Your task to perform on an android device: toggle priority inbox in the gmail app Image 0: 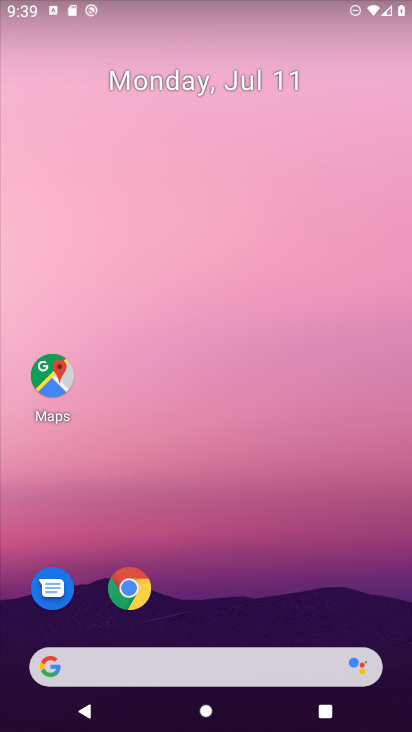
Step 0: drag from (393, 663) to (194, 100)
Your task to perform on an android device: toggle priority inbox in the gmail app Image 1: 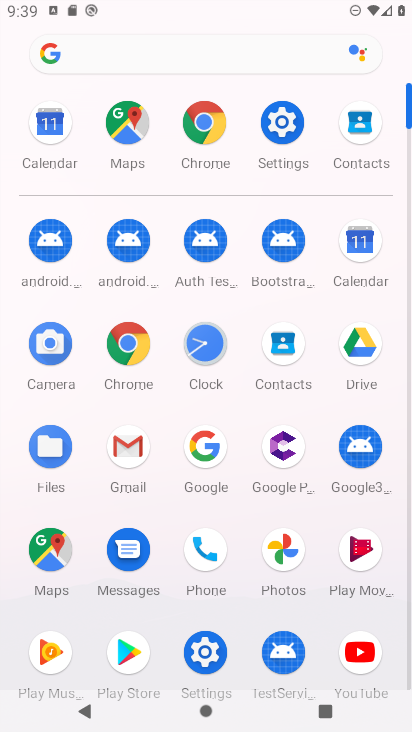
Step 1: click (130, 457)
Your task to perform on an android device: toggle priority inbox in the gmail app Image 2: 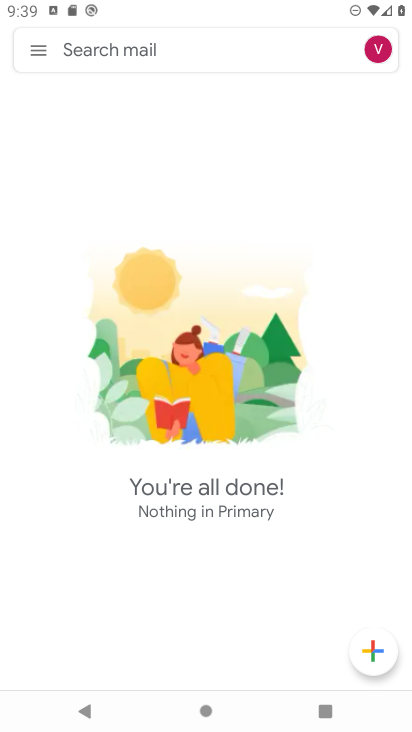
Step 2: click (32, 57)
Your task to perform on an android device: toggle priority inbox in the gmail app Image 3: 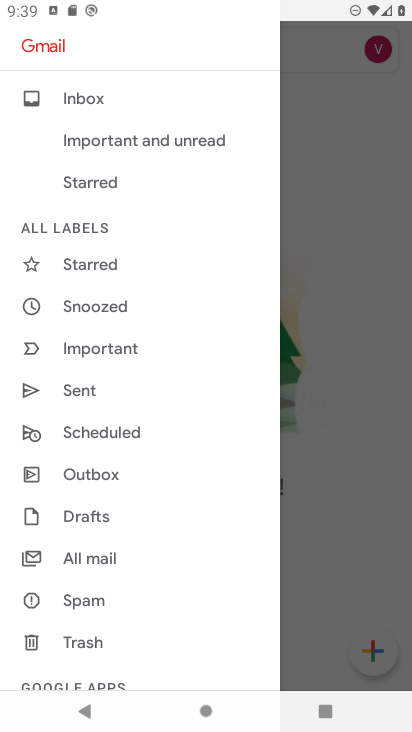
Step 3: drag from (151, 671) to (122, 118)
Your task to perform on an android device: toggle priority inbox in the gmail app Image 4: 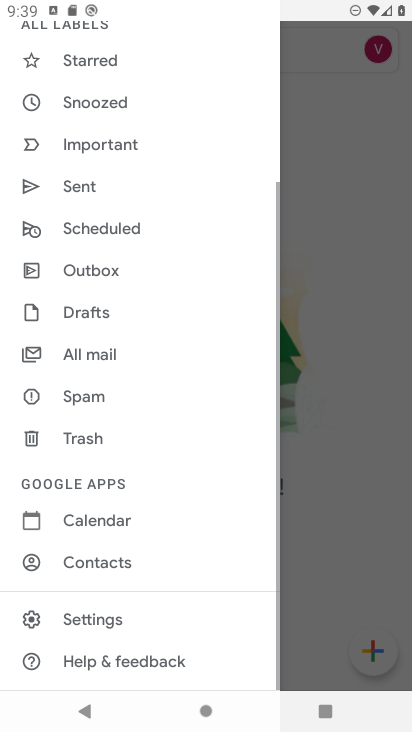
Step 4: click (117, 628)
Your task to perform on an android device: toggle priority inbox in the gmail app Image 5: 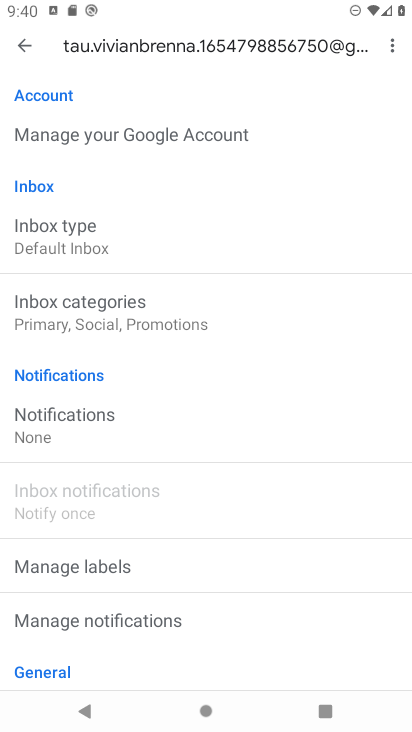
Step 5: click (125, 239)
Your task to perform on an android device: toggle priority inbox in the gmail app Image 6: 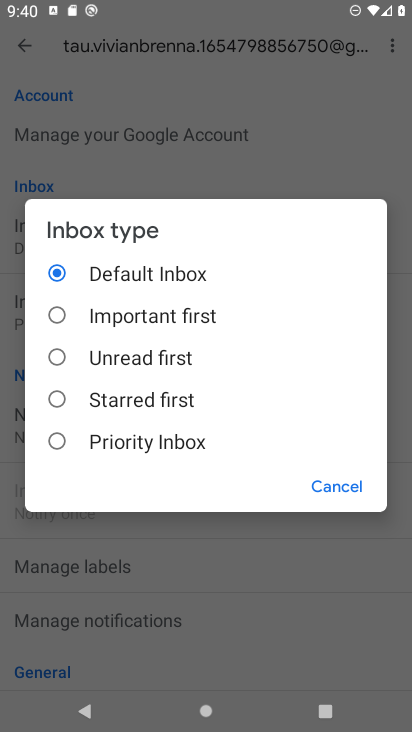
Step 6: task complete